Your task to perform on an android device: Open calendar and show me the second week of next month Image 0: 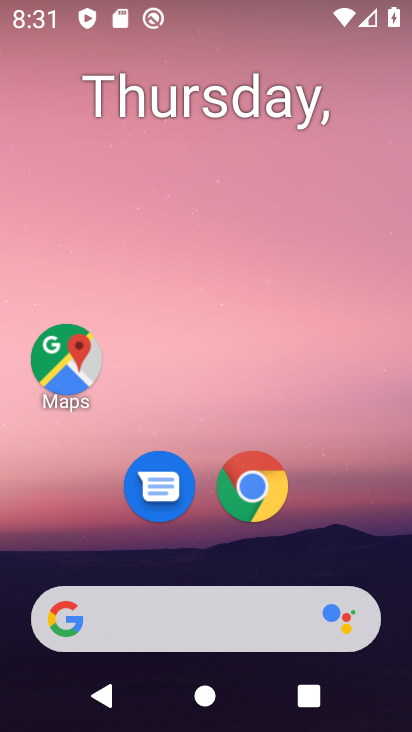
Step 0: drag from (126, 561) to (155, 20)
Your task to perform on an android device: Open calendar and show me the second week of next month Image 1: 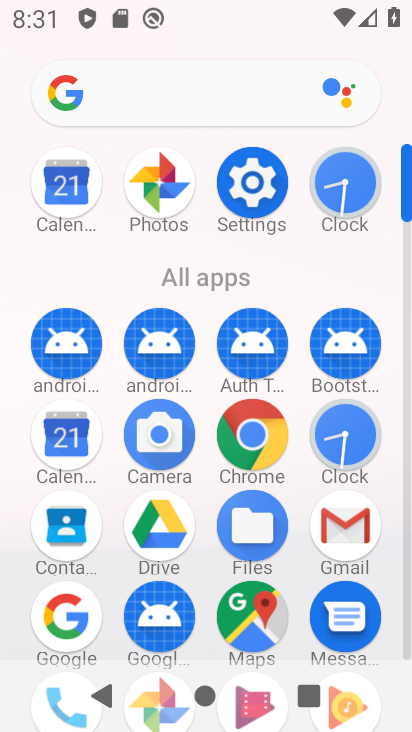
Step 1: click (59, 448)
Your task to perform on an android device: Open calendar and show me the second week of next month Image 2: 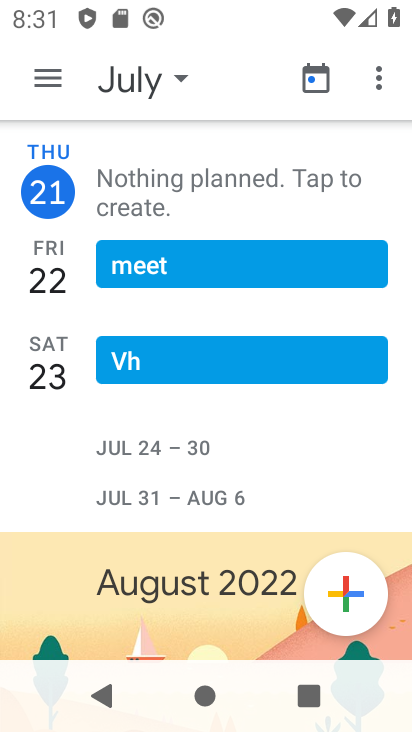
Step 2: click (149, 75)
Your task to perform on an android device: Open calendar and show me the second week of next month Image 3: 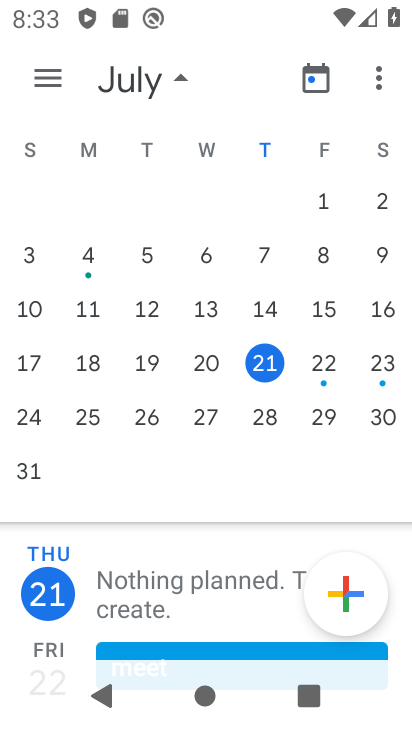
Step 3: drag from (350, 282) to (10, 335)
Your task to perform on an android device: Open calendar and show me the second week of next month Image 4: 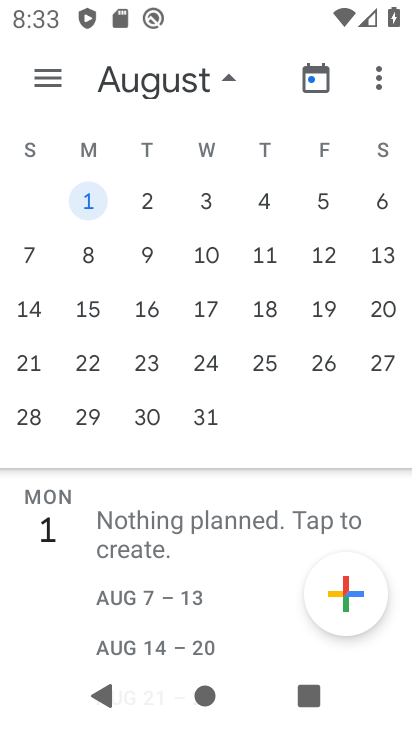
Step 4: click (77, 237)
Your task to perform on an android device: Open calendar and show me the second week of next month Image 5: 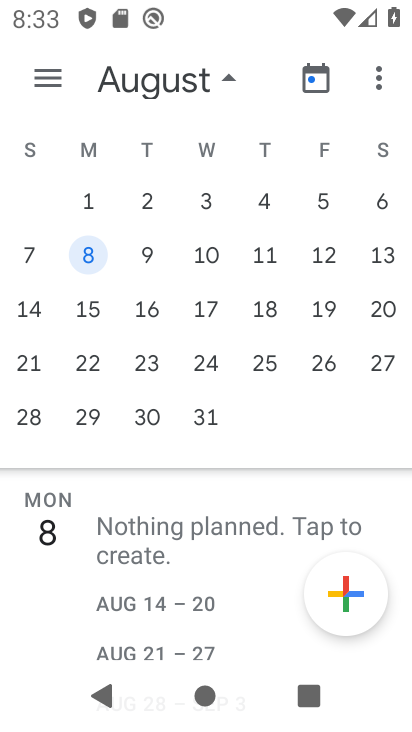
Step 5: task complete